Your task to perform on an android device: toggle wifi Image 0: 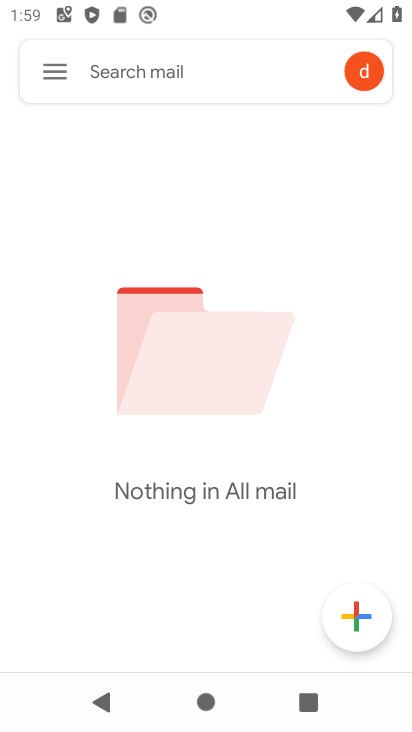
Step 0: press home button
Your task to perform on an android device: toggle wifi Image 1: 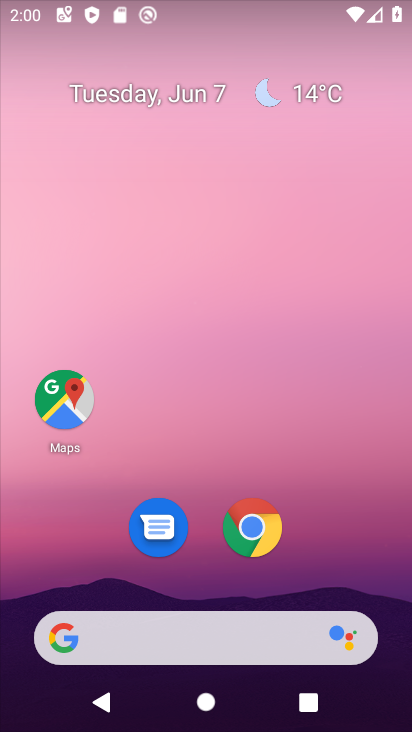
Step 1: drag from (389, 602) to (260, 66)
Your task to perform on an android device: toggle wifi Image 2: 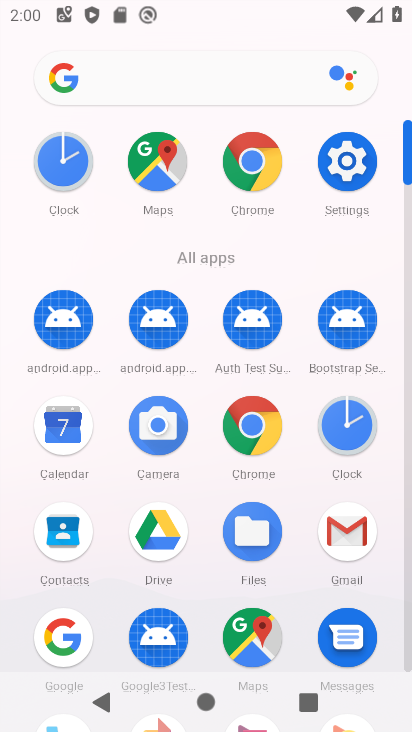
Step 2: click (352, 152)
Your task to perform on an android device: toggle wifi Image 3: 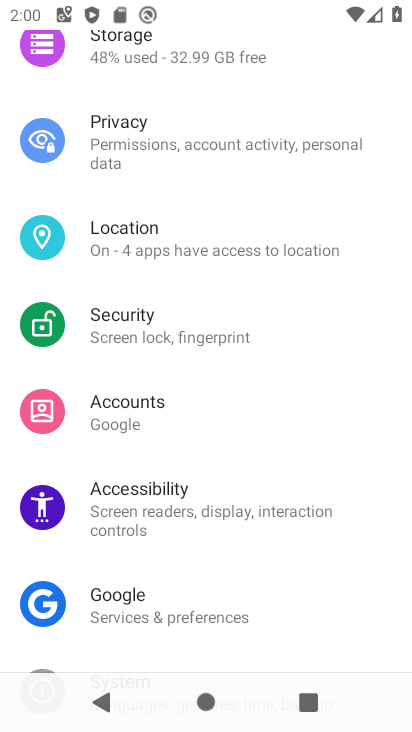
Step 3: drag from (241, 207) to (312, 713)
Your task to perform on an android device: toggle wifi Image 4: 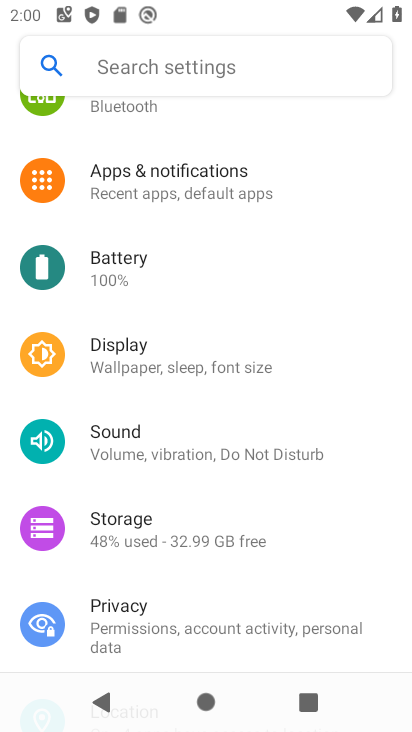
Step 4: drag from (220, 217) to (230, 669)
Your task to perform on an android device: toggle wifi Image 5: 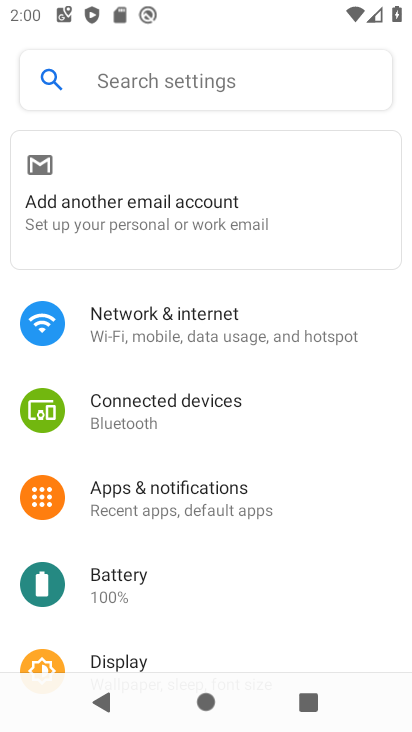
Step 5: click (184, 310)
Your task to perform on an android device: toggle wifi Image 6: 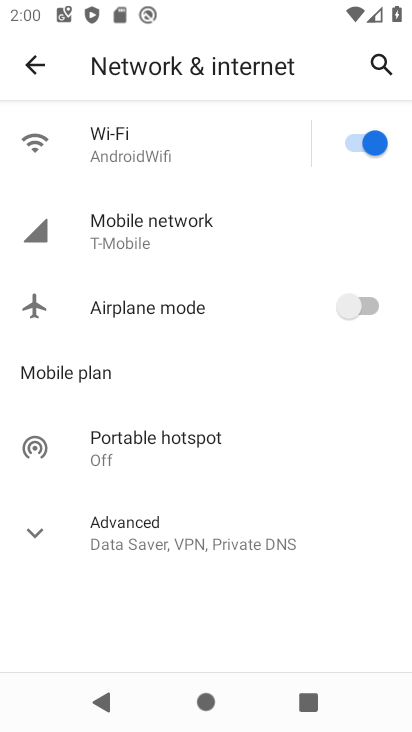
Step 6: click (374, 142)
Your task to perform on an android device: toggle wifi Image 7: 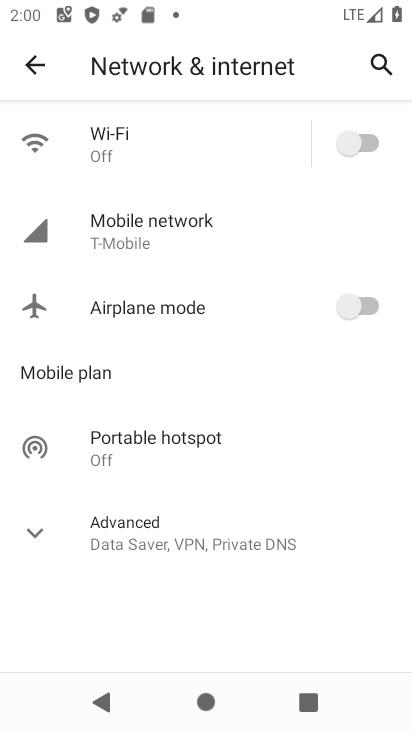
Step 7: task complete